Your task to perform on an android device: What is the capital of Norway? Image 0: 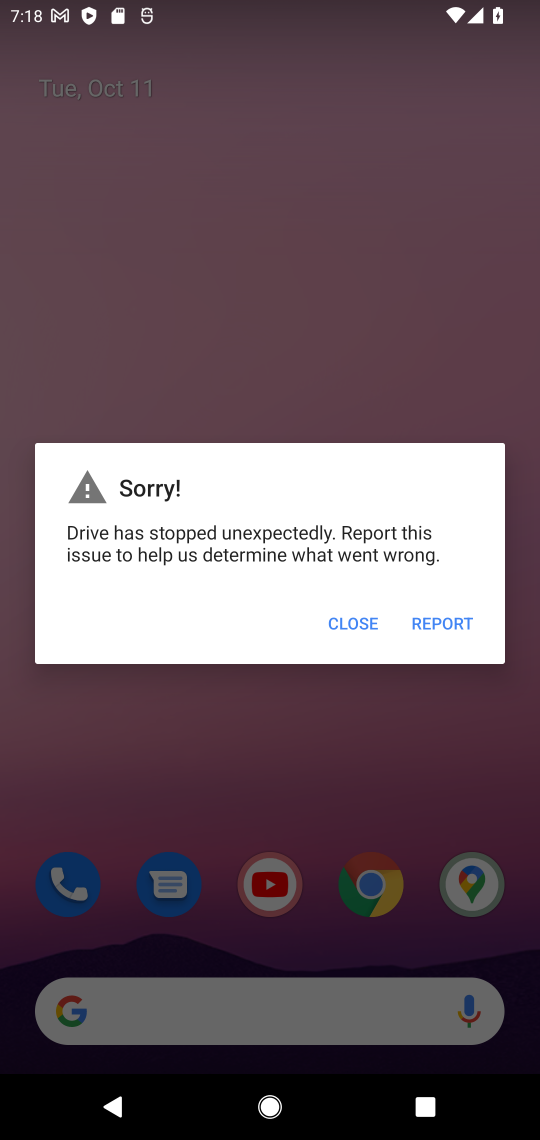
Step 0: press home button
Your task to perform on an android device: What is the capital of Norway? Image 1: 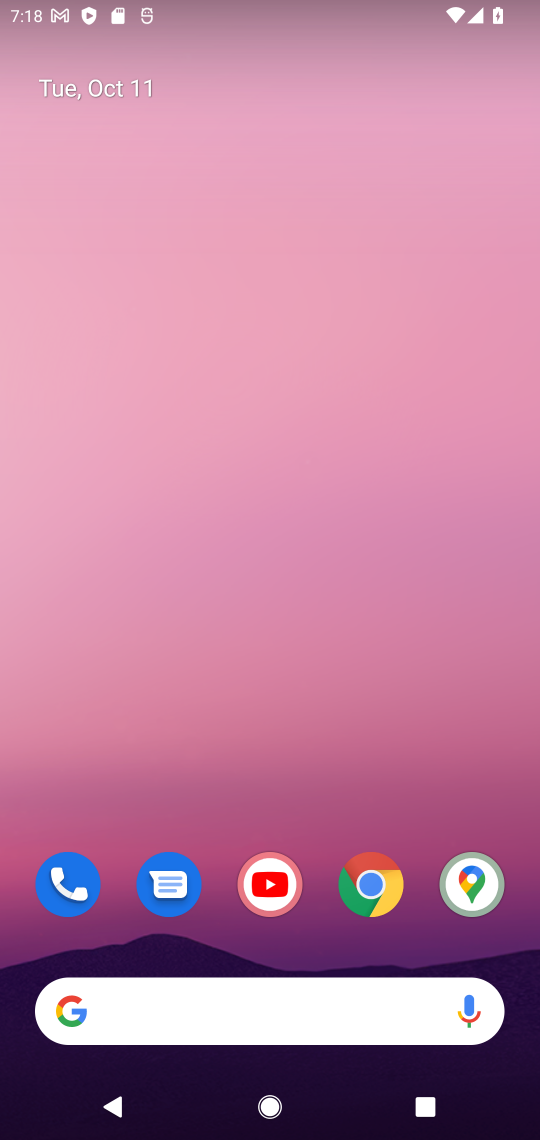
Step 1: click (355, 905)
Your task to perform on an android device: What is the capital of Norway? Image 2: 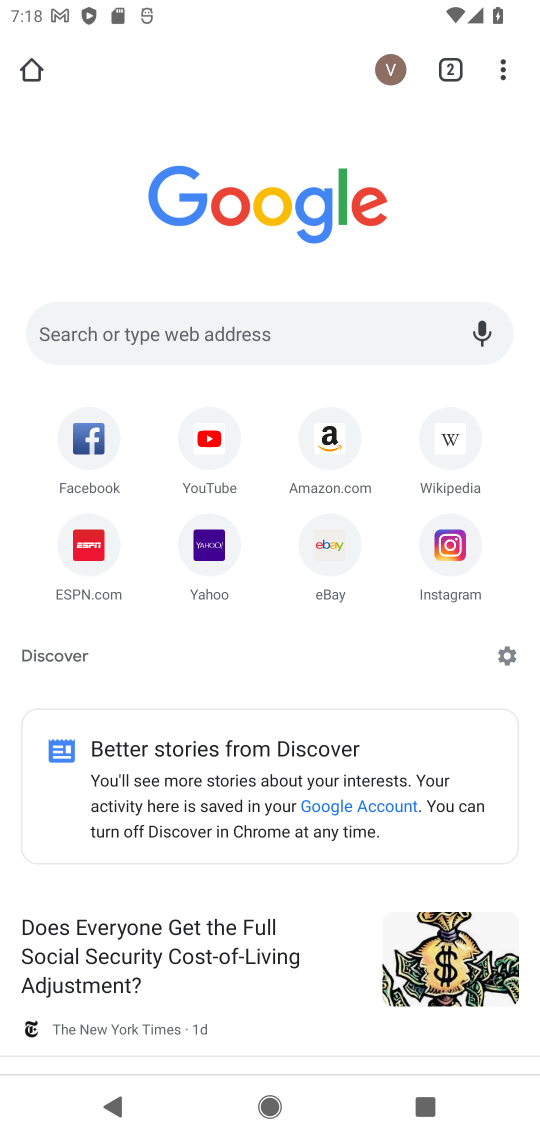
Step 2: click (248, 325)
Your task to perform on an android device: What is the capital of Norway? Image 3: 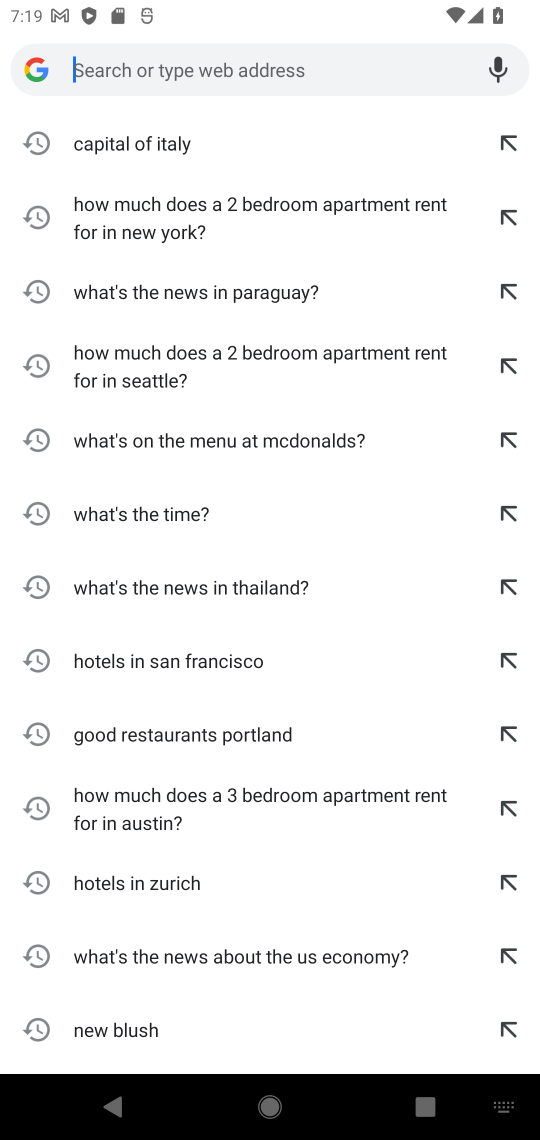
Step 3: type "capital of Norway?"
Your task to perform on an android device: What is the capital of Norway? Image 4: 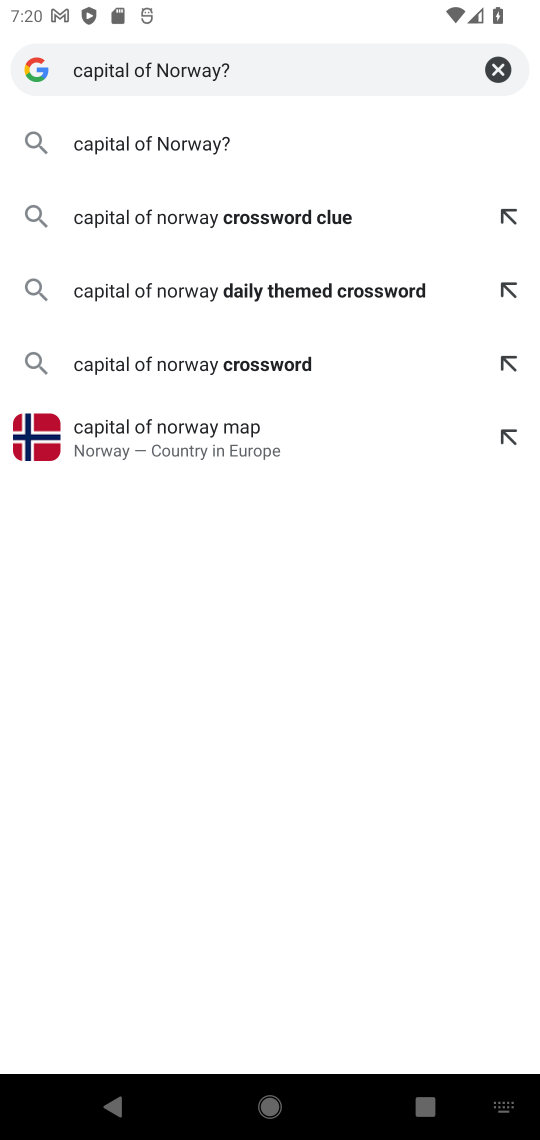
Step 4: click (258, 143)
Your task to perform on an android device: What is the capital of Norway? Image 5: 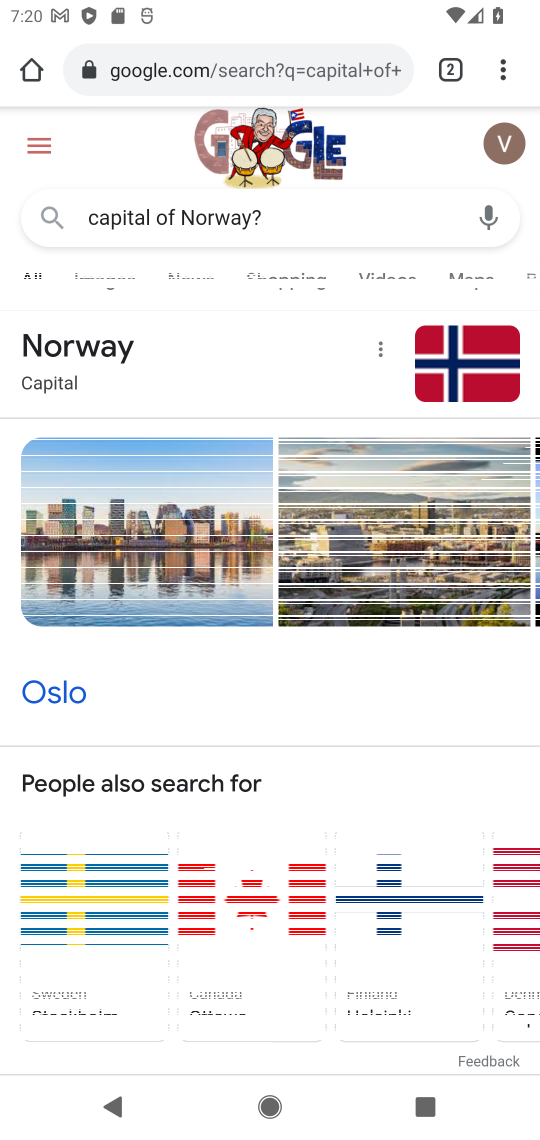
Step 5: task complete